Your task to perform on an android device: see tabs open on other devices in the chrome app Image 0: 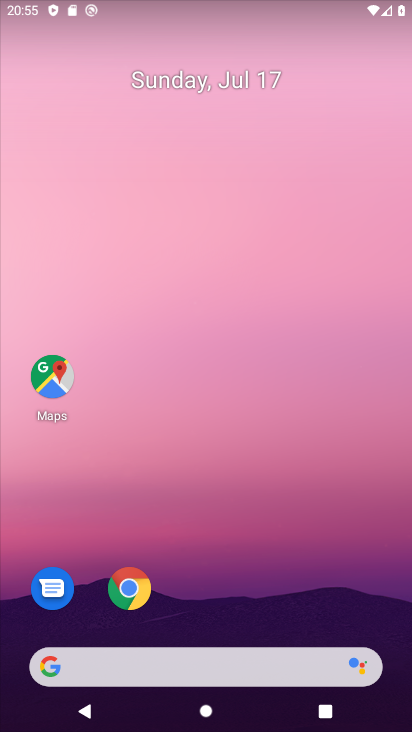
Step 0: press home button
Your task to perform on an android device: see tabs open on other devices in the chrome app Image 1: 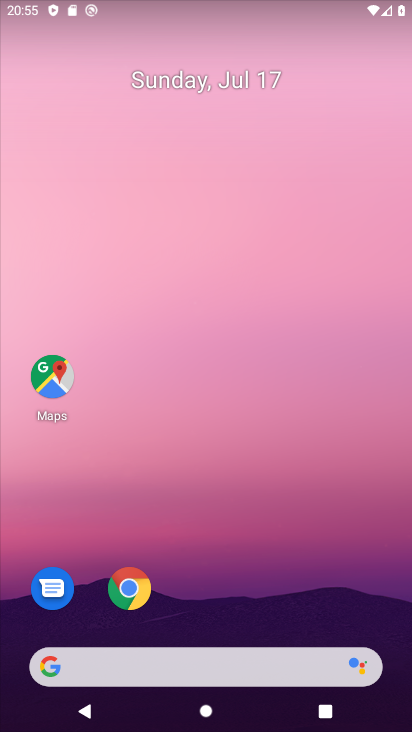
Step 1: drag from (275, 610) to (339, 90)
Your task to perform on an android device: see tabs open on other devices in the chrome app Image 2: 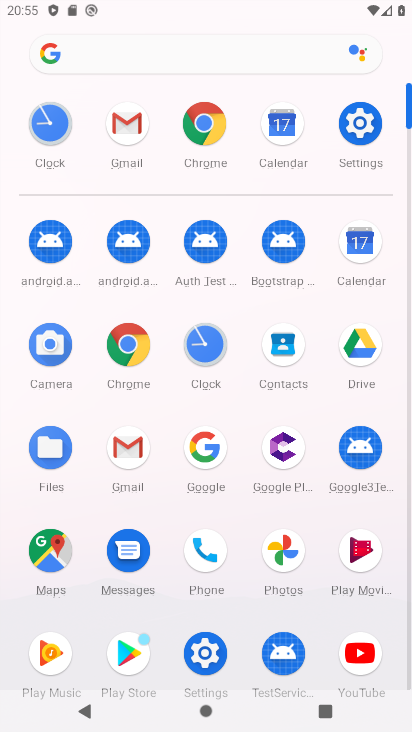
Step 2: click (211, 116)
Your task to perform on an android device: see tabs open on other devices in the chrome app Image 3: 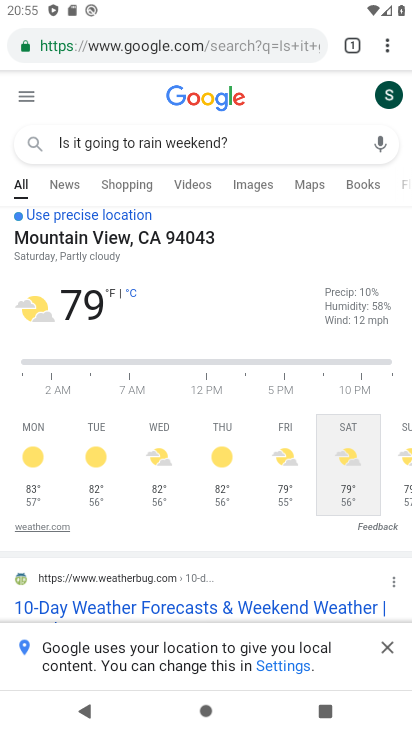
Step 3: task complete